Your task to perform on an android device: What's the weather? Image 0: 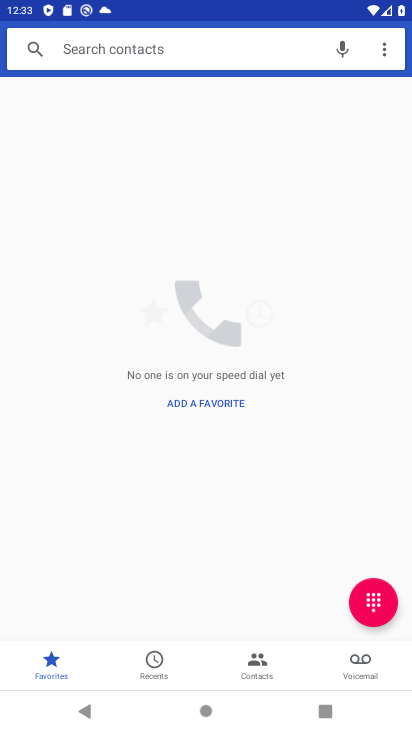
Step 0: press back button
Your task to perform on an android device: What's the weather? Image 1: 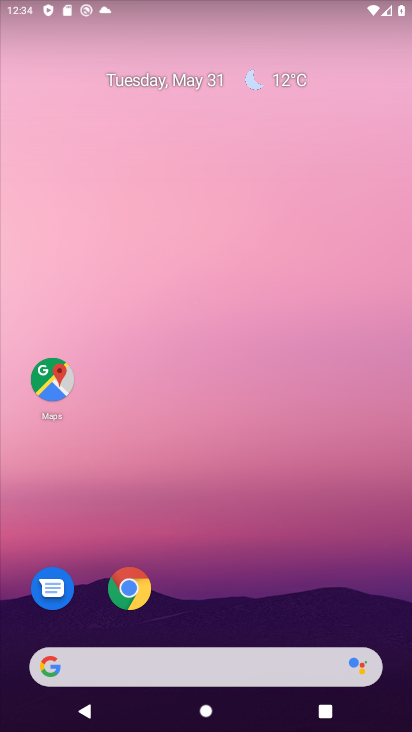
Step 1: click (286, 76)
Your task to perform on an android device: What's the weather? Image 2: 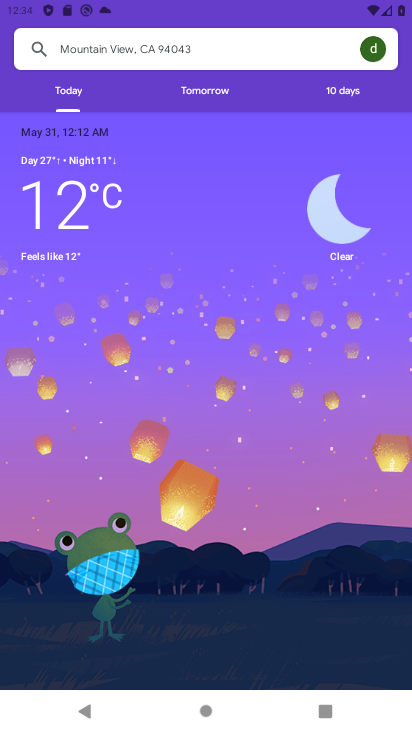
Step 2: task complete